Your task to perform on an android device: turn on translation in the chrome app Image 0: 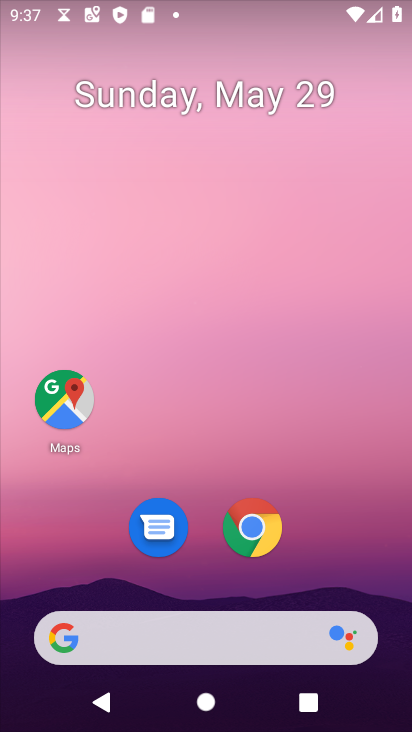
Step 0: click (261, 532)
Your task to perform on an android device: turn on translation in the chrome app Image 1: 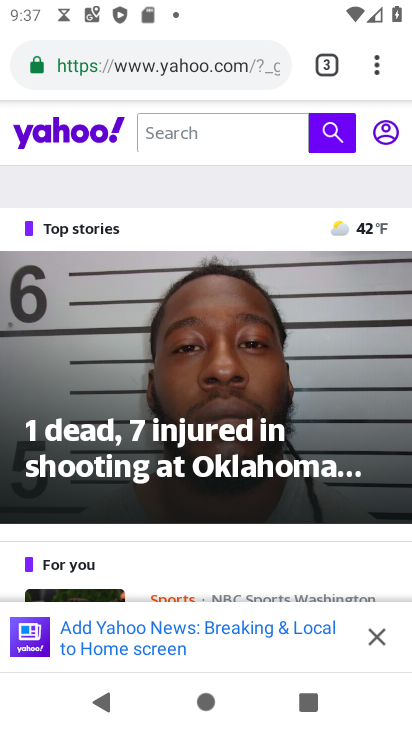
Step 1: drag from (376, 67) to (256, 581)
Your task to perform on an android device: turn on translation in the chrome app Image 2: 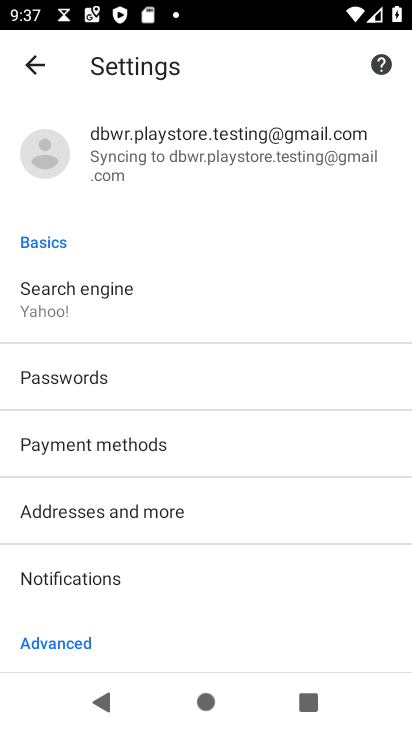
Step 2: drag from (201, 603) to (353, 211)
Your task to perform on an android device: turn on translation in the chrome app Image 3: 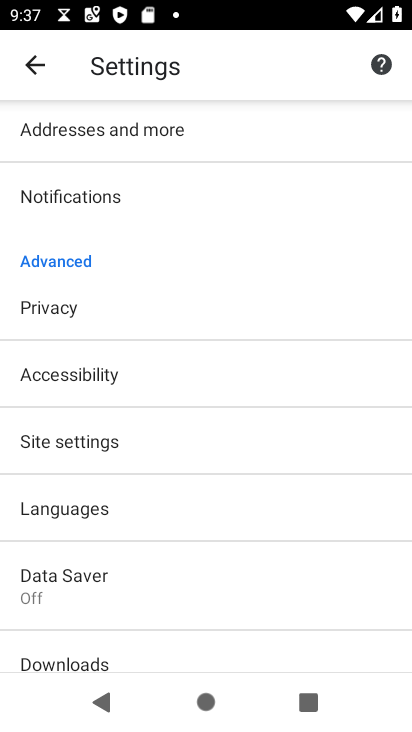
Step 3: click (129, 499)
Your task to perform on an android device: turn on translation in the chrome app Image 4: 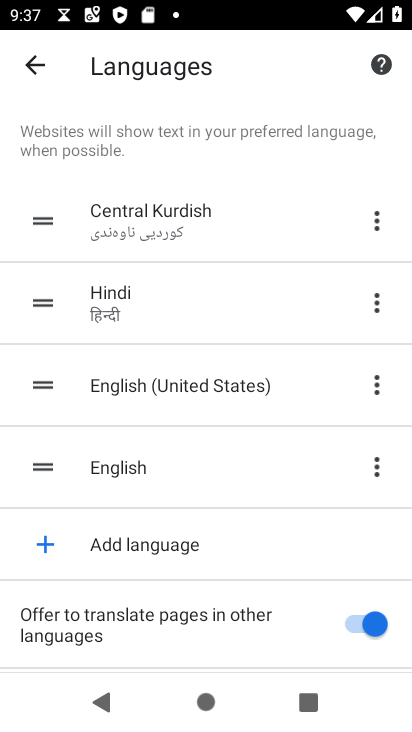
Step 4: task complete